Your task to perform on an android device: uninstall "Google Play Games" Image 0: 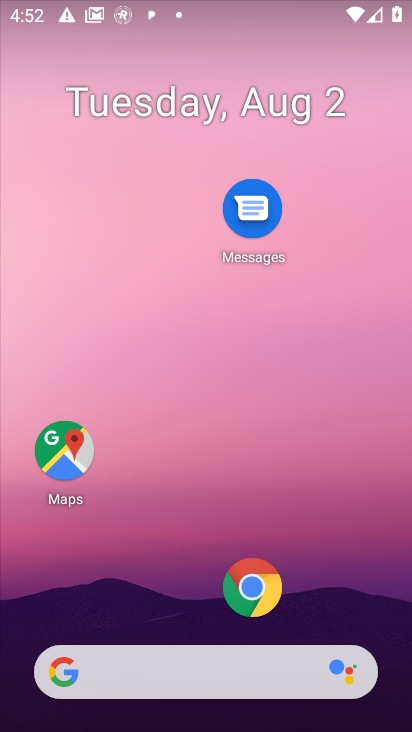
Step 0: drag from (172, 609) to (167, 189)
Your task to perform on an android device: uninstall "Google Play Games" Image 1: 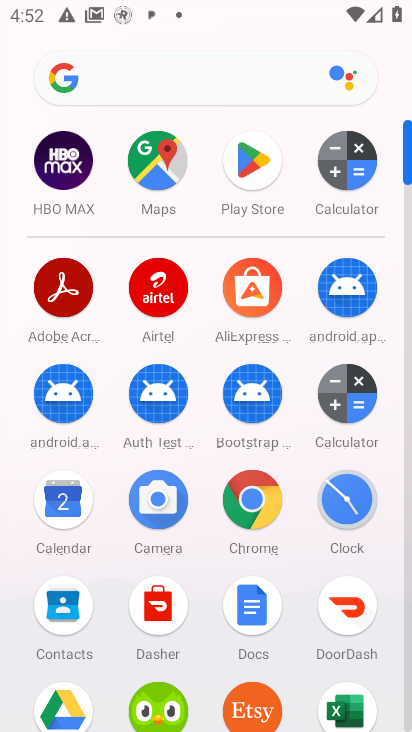
Step 1: click (250, 181)
Your task to perform on an android device: uninstall "Google Play Games" Image 2: 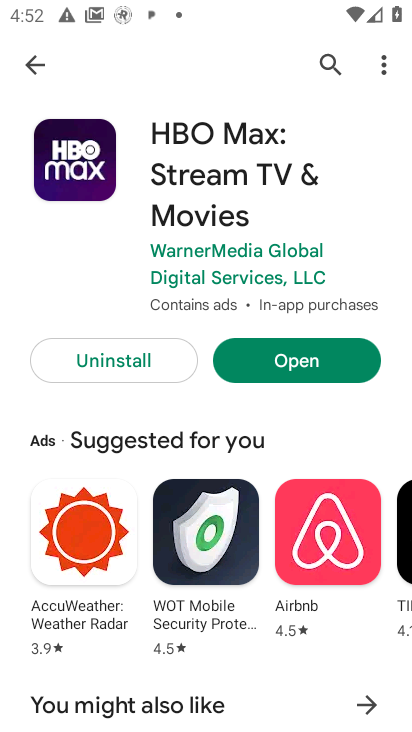
Step 2: click (315, 68)
Your task to perform on an android device: uninstall "Google Play Games" Image 3: 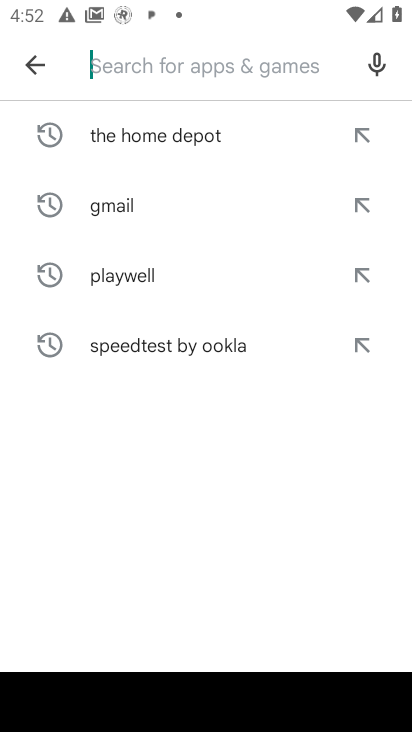
Step 3: type "Google Play Games"
Your task to perform on an android device: uninstall "Google Play Games" Image 4: 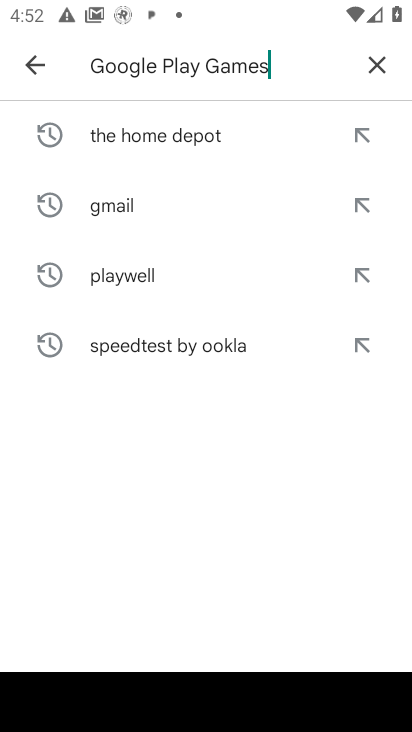
Step 4: type ""
Your task to perform on an android device: uninstall "Google Play Games" Image 5: 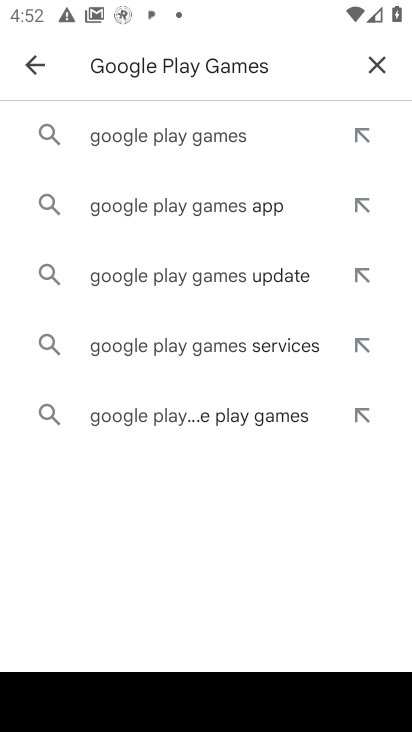
Step 5: click (198, 148)
Your task to perform on an android device: uninstall "Google Play Games" Image 6: 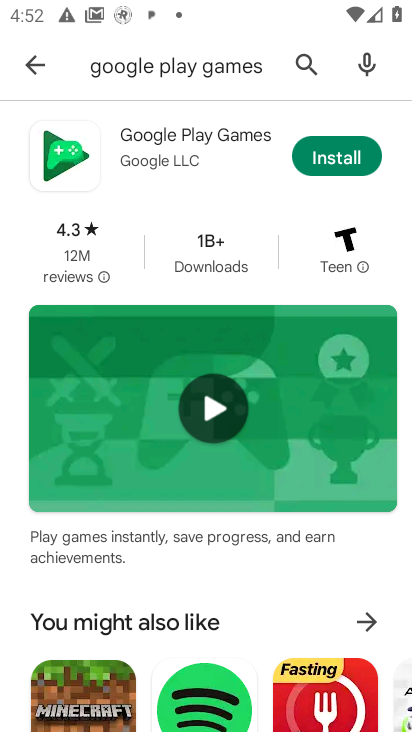
Step 6: task complete